Your task to perform on an android device: Search for "macbook air" on walmart.com, select the first entry, and add it to the cart. Image 0: 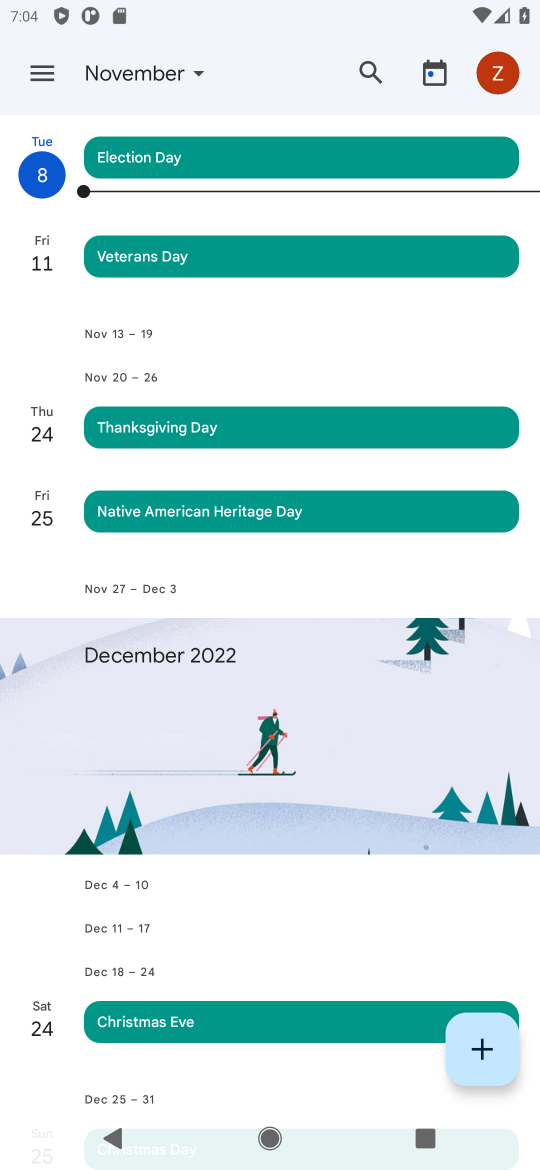
Step 0: press home button
Your task to perform on an android device: Search for "macbook air" on walmart.com, select the first entry, and add it to the cart. Image 1: 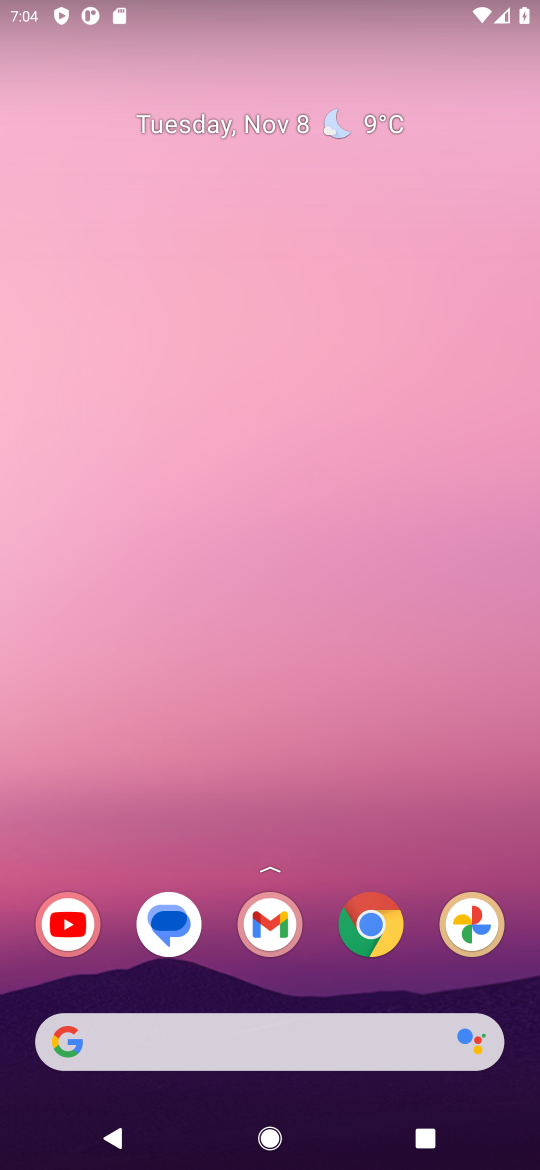
Step 1: click (245, 1035)
Your task to perform on an android device: Search for "macbook air" on walmart.com, select the first entry, and add it to the cart. Image 2: 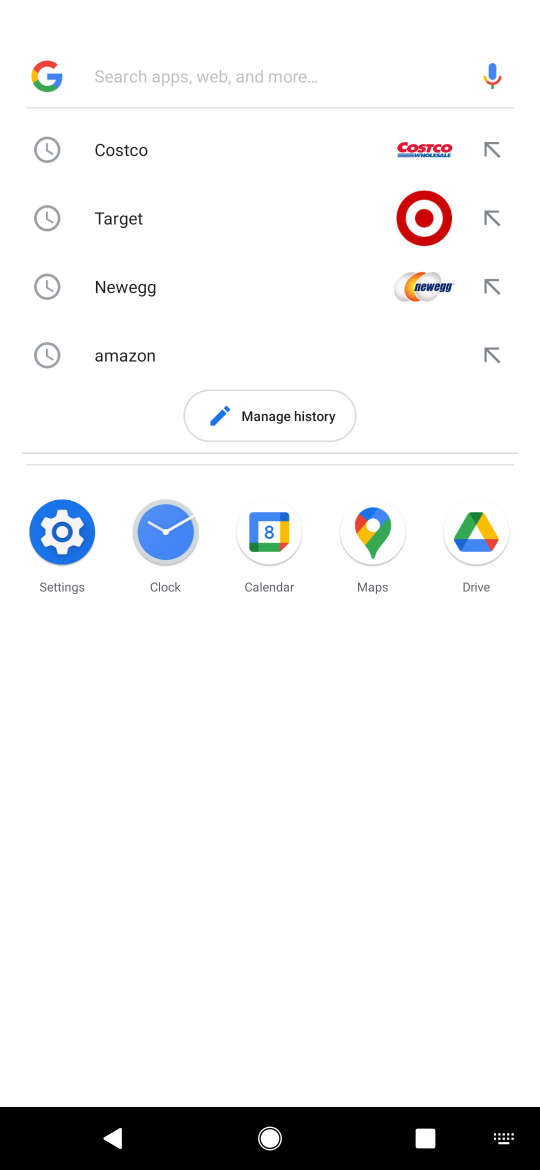
Step 2: type "walmart.com"
Your task to perform on an android device: Search for "macbook air" on walmart.com, select the first entry, and add it to the cart. Image 3: 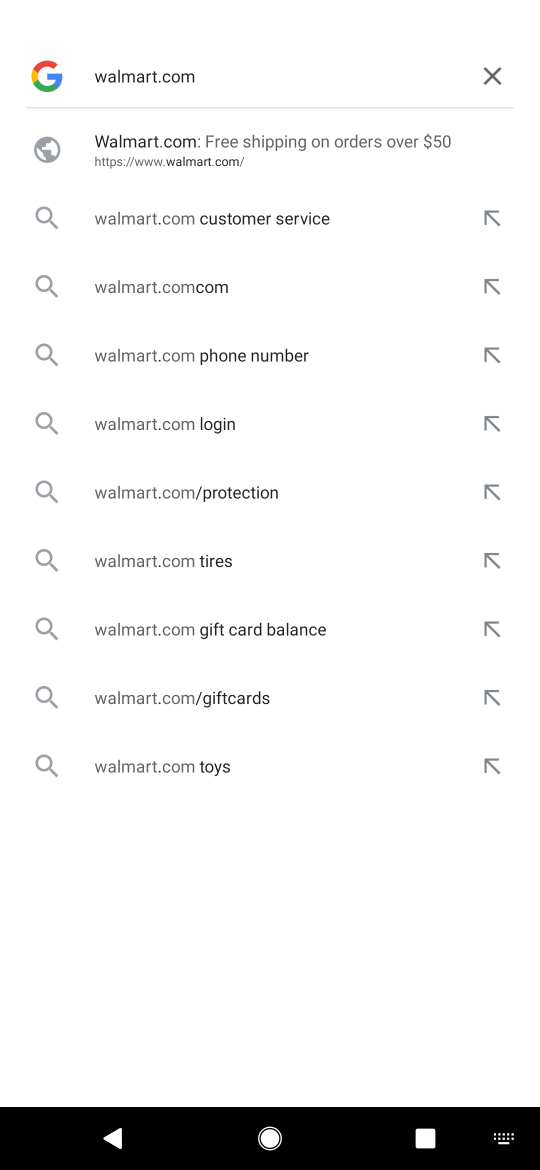
Step 3: click (177, 155)
Your task to perform on an android device: Search for "macbook air" on walmart.com, select the first entry, and add it to the cart. Image 4: 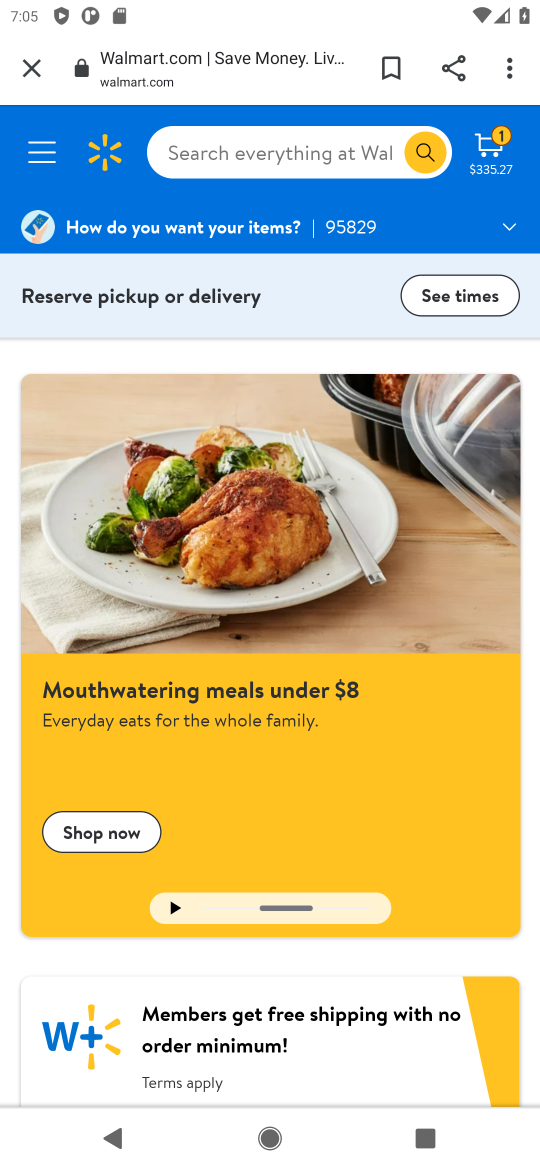
Step 4: click (271, 146)
Your task to perform on an android device: Search for "macbook air" on walmart.com, select the first entry, and add it to the cart. Image 5: 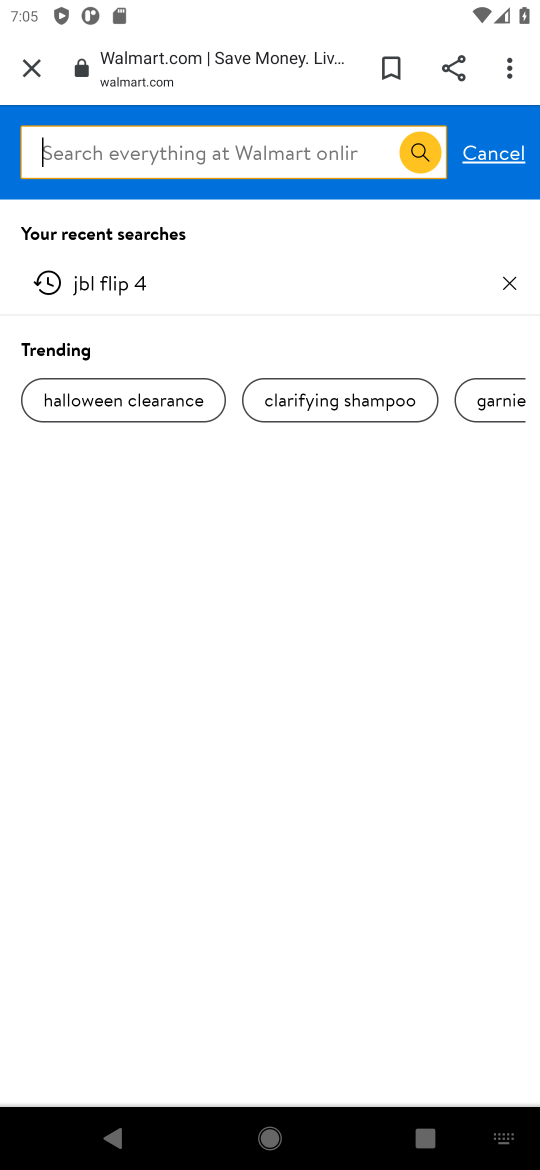
Step 5: type "macbook air"
Your task to perform on an android device: Search for "macbook air" on walmart.com, select the first entry, and add it to the cart. Image 6: 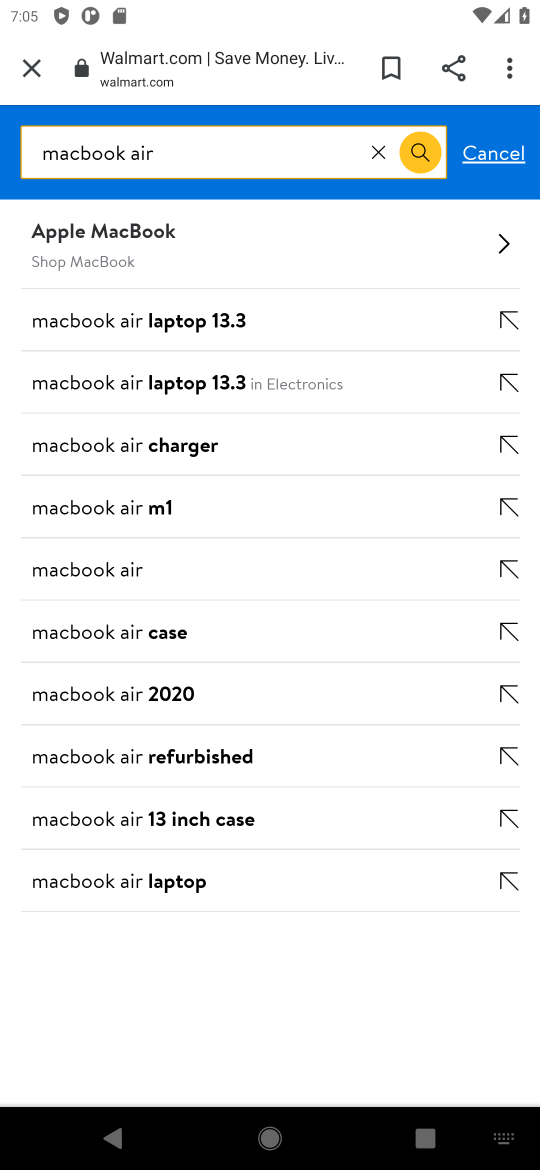
Step 6: click (93, 570)
Your task to perform on an android device: Search for "macbook air" on walmart.com, select the first entry, and add it to the cart. Image 7: 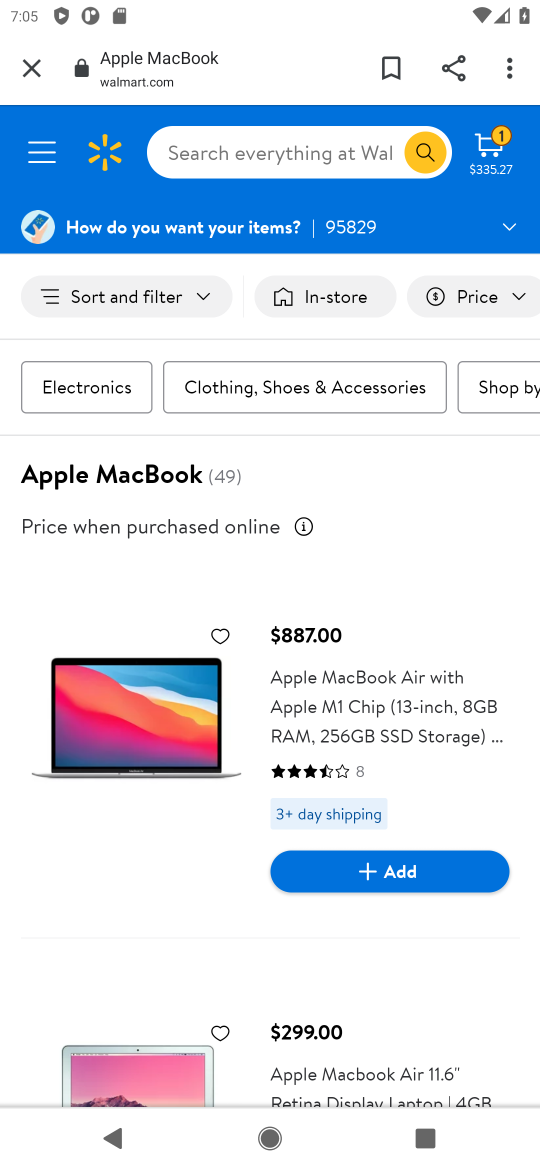
Step 7: click (352, 876)
Your task to perform on an android device: Search for "macbook air" on walmart.com, select the first entry, and add it to the cart. Image 8: 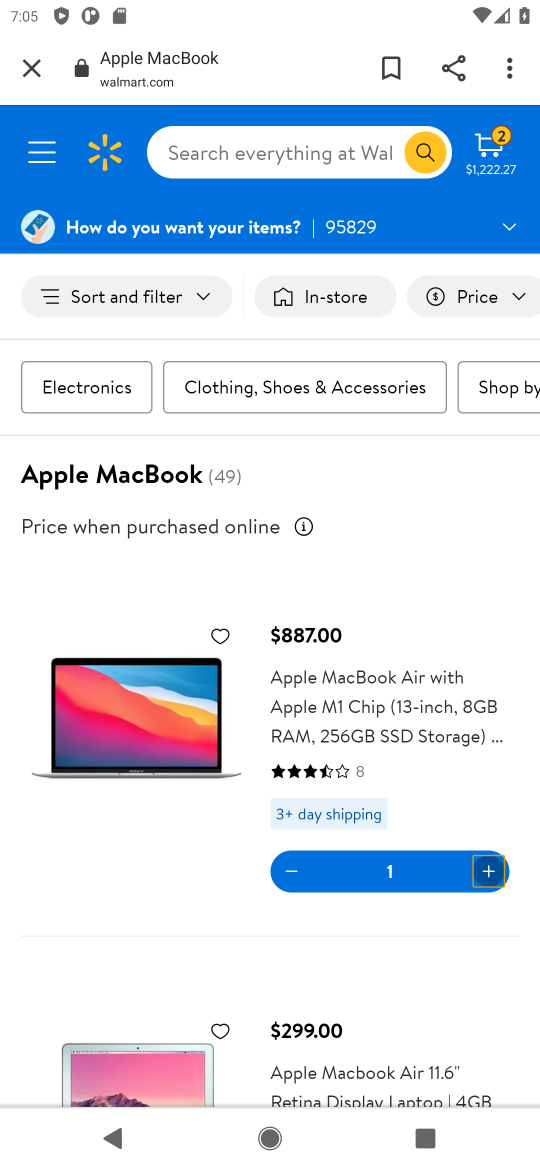
Step 8: task complete